Your task to perform on an android device: Go to Maps Image 0: 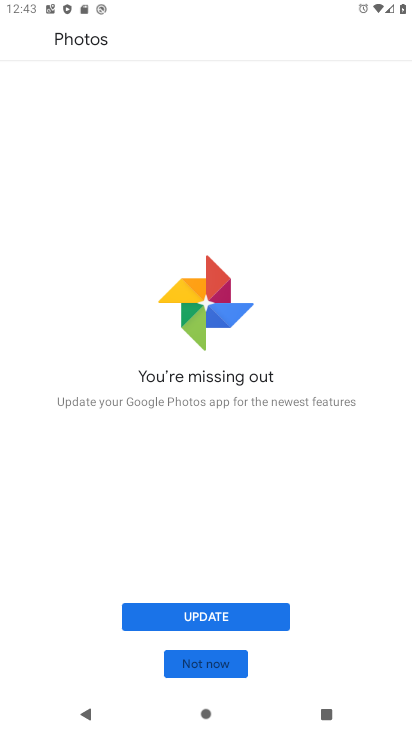
Step 0: press home button
Your task to perform on an android device: Go to Maps Image 1: 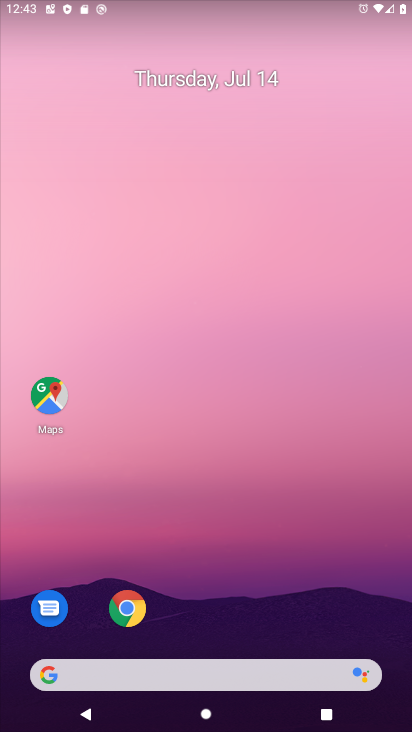
Step 1: click (48, 395)
Your task to perform on an android device: Go to Maps Image 2: 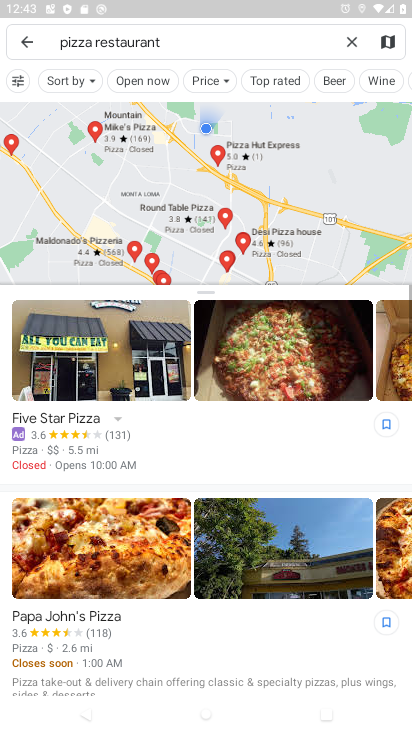
Step 2: click (349, 43)
Your task to perform on an android device: Go to Maps Image 3: 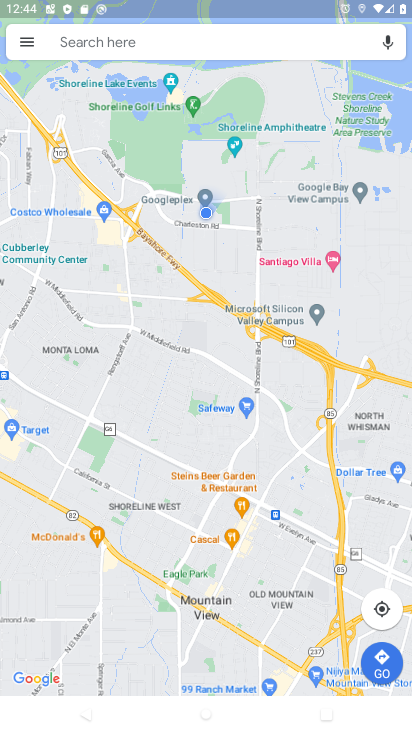
Step 3: task complete